Your task to perform on an android device: empty trash in google photos Image 0: 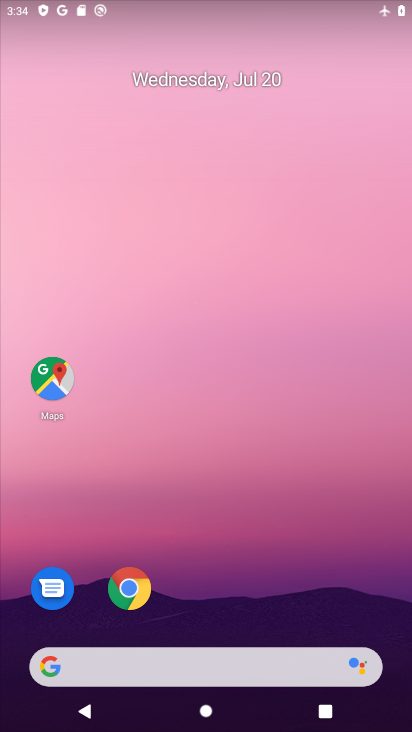
Step 0: drag from (217, 622) to (257, 12)
Your task to perform on an android device: empty trash in google photos Image 1: 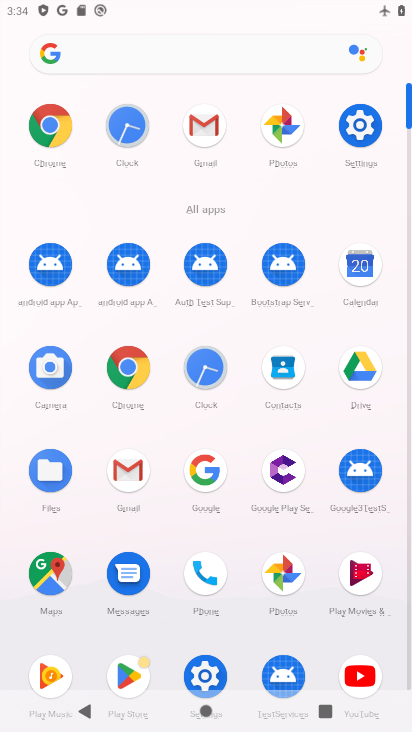
Step 1: click (296, 110)
Your task to perform on an android device: empty trash in google photos Image 2: 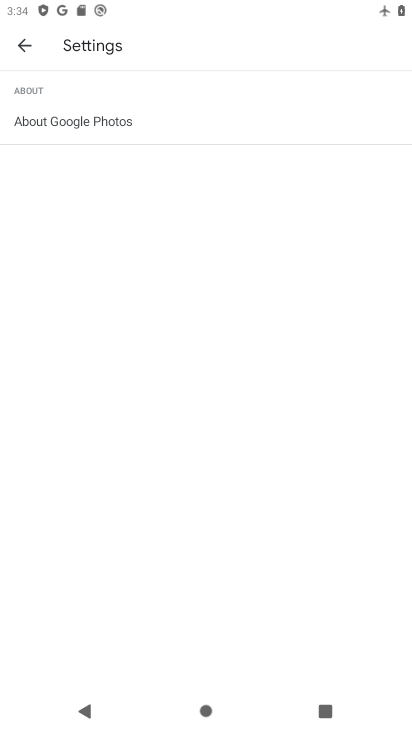
Step 2: click (26, 53)
Your task to perform on an android device: empty trash in google photos Image 3: 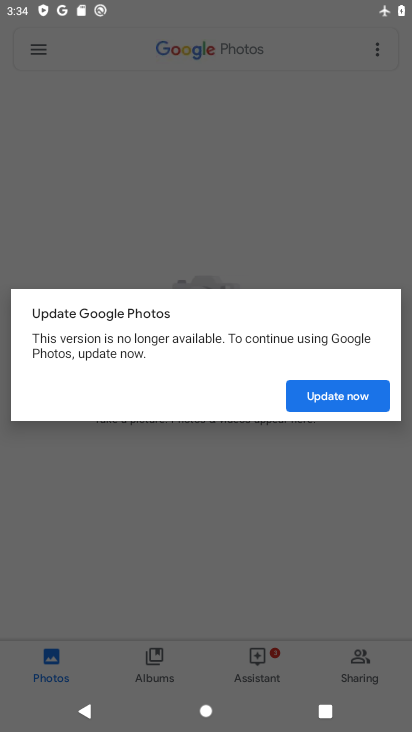
Step 3: click (379, 393)
Your task to perform on an android device: empty trash in google photos Image 4: 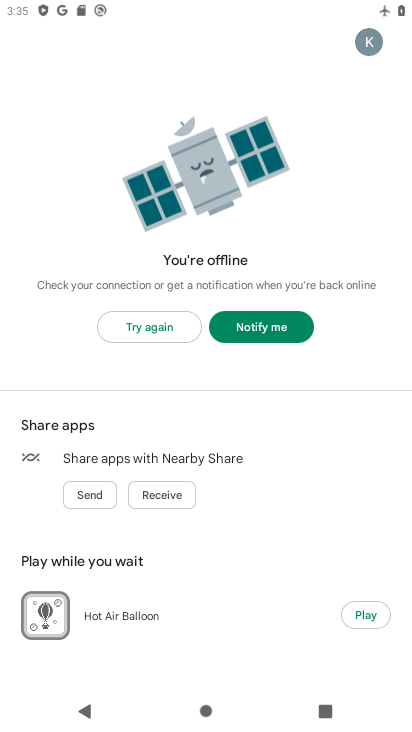
Step 4: press back button
Your task to perform on an android device: empty trash in google photos Image 5: 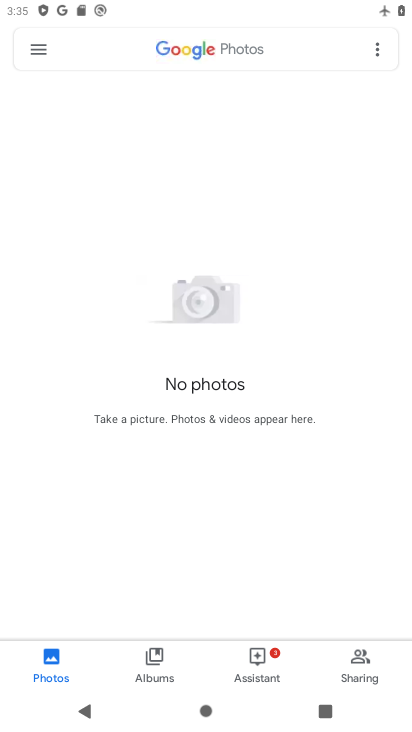
Step 5: click (26, 50)
Your task to perform on an android device: empty trash in google photos Image 6: 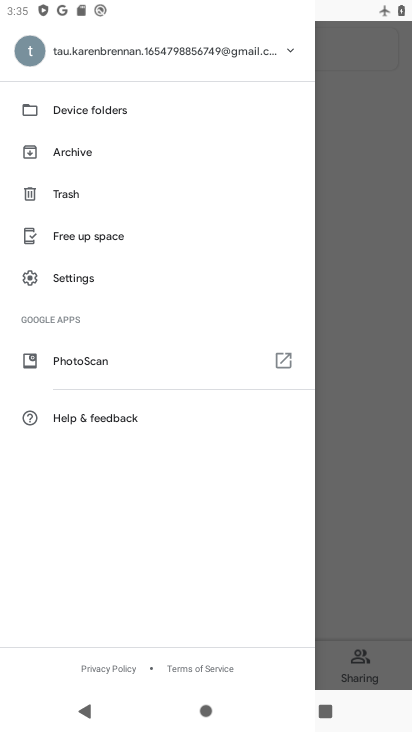
Step 6: click (86, 181)
Your task to perform on an android device: empty trash in google photos Image 7: 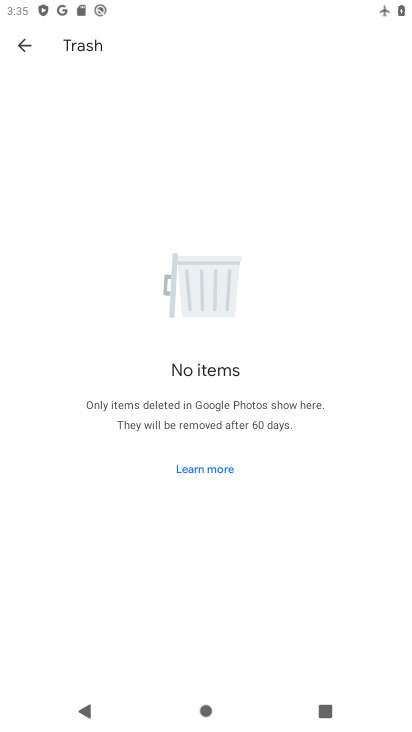
Step 7: task complete